Your task to perform on an android device: toggle pop-ups in chrome Image 0: 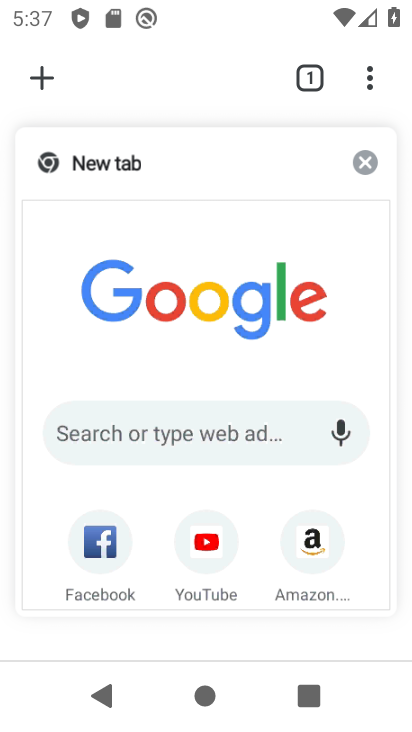
Step 0: press home button
Your task to perform on an android device: toggle pop-ups in chrome Image 1: 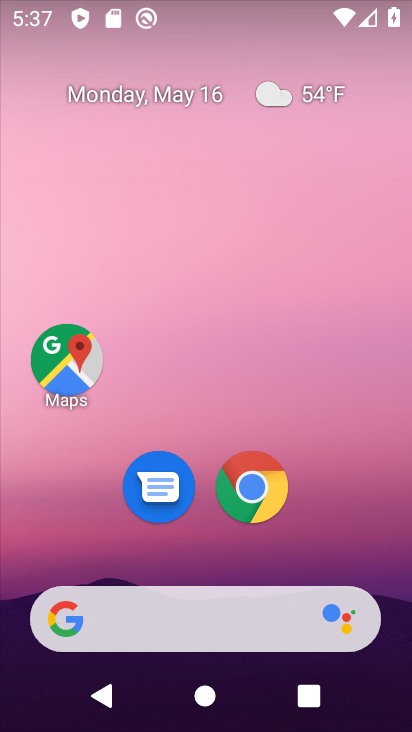
Step 1: drag from (220, 596) to (213, 329)
Your task to perform on an android device: toggle pop-ups in chrome Image 2: 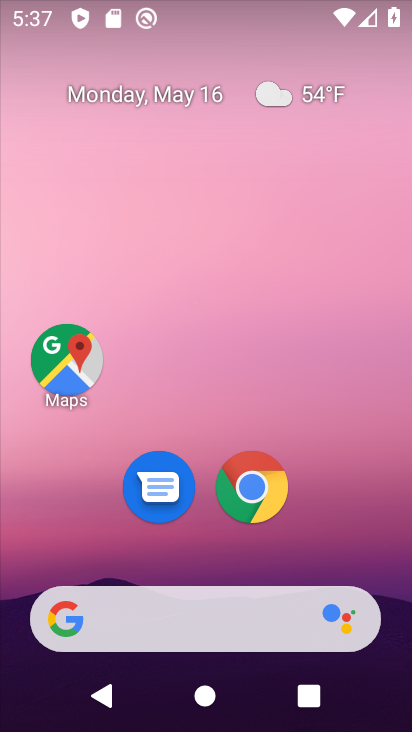
Step 2: click (262, 492)
Your task to perform on an android device: toggle pop-ups in chrome Image 3: 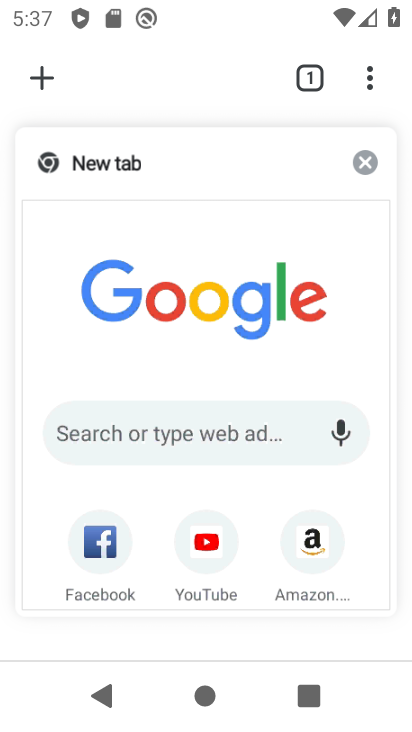
Step 3: click (365, 84)
Your task to perform on an android device: toggle pop-ups in chrome Image 4: 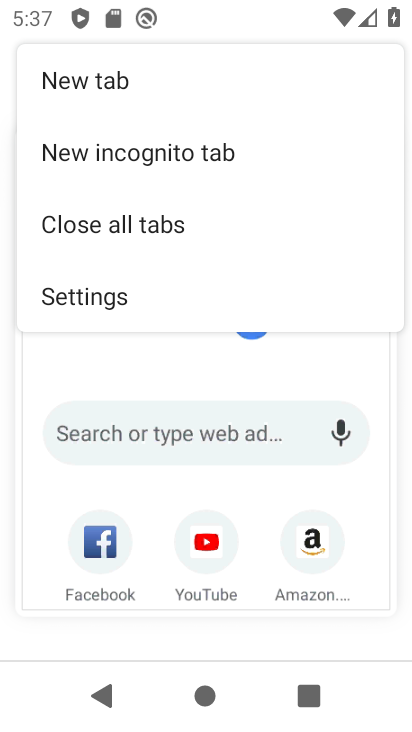
Step 4: click (55, 279)
Your task to perform on an android device: toggle pop-ups in chrome Image 5: 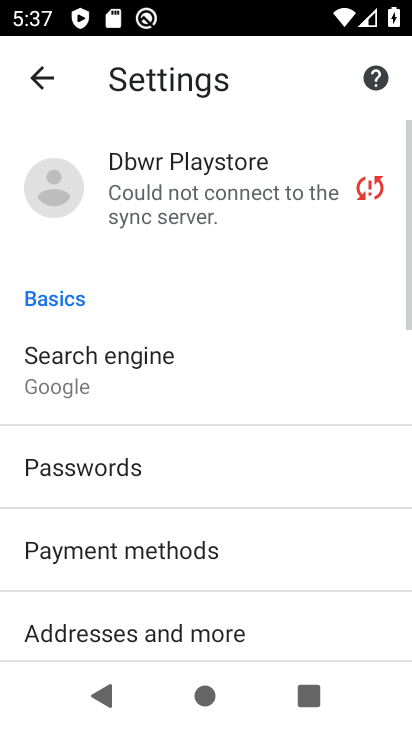
Step 5: drag from (100, 652) to (108, 329)
Your task to perform on an android device: toggle pop-ups in chrome Image 6: 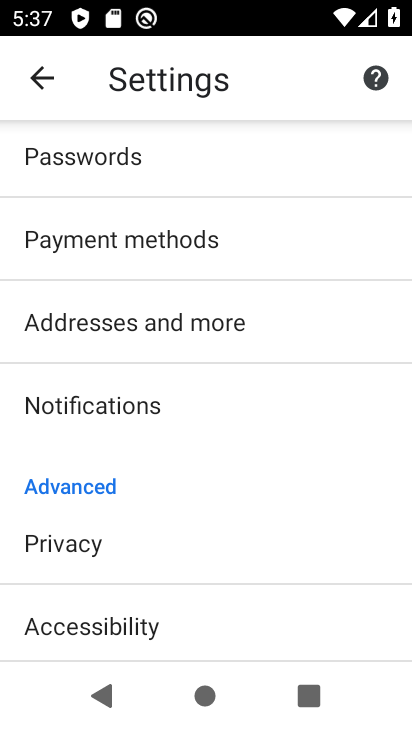
Step 6: drag from (113, 630) to (106, 354)
Your task to perform on an android device: toggle pop-ups in chrome Image 7: 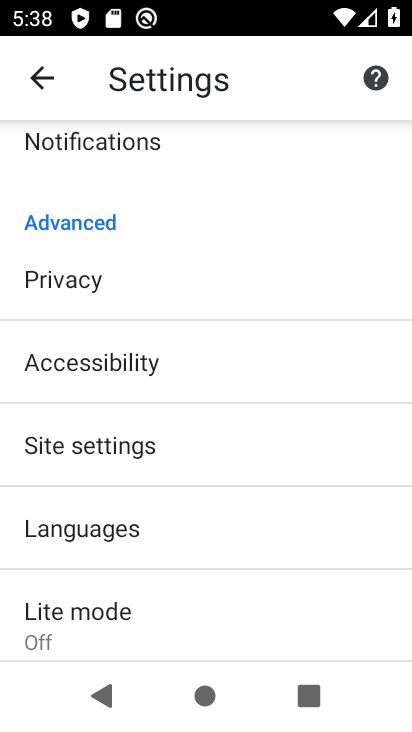
Step 7: click (88, 446)
Your task to perform on an android device: toggle pop-ups in chrome Image 8: 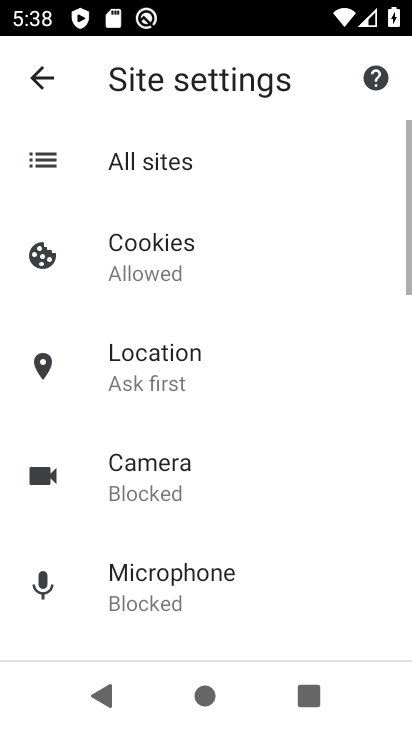
Step 8: drag from (151, 617) to (152, 290)
Your task to perform on an android device: toggle pop-ups in chrome Image 9: 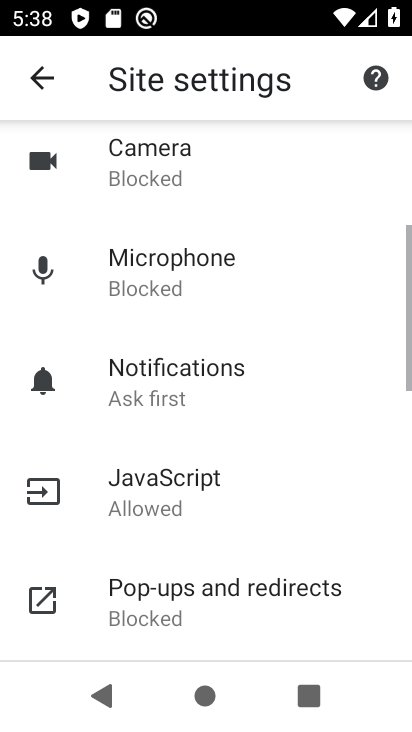
Step 9: click (184, 595)
Your task to perform on an android device: toggle pop-ups in chrome Image 10: 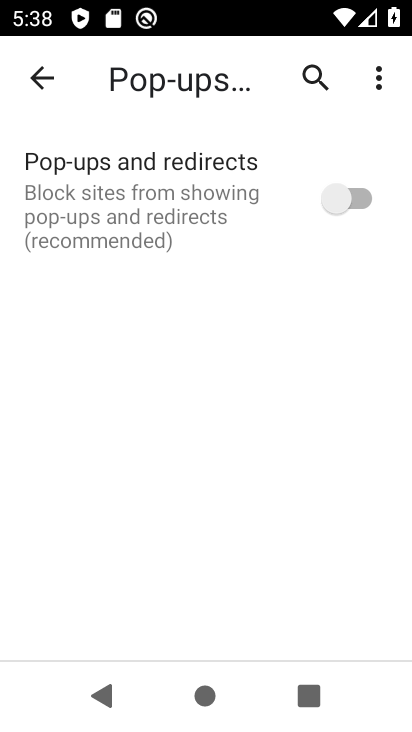
Step 10: click (355, 187)
Your task to perform on an android device: toggle pop-ups in chrome Image 11: 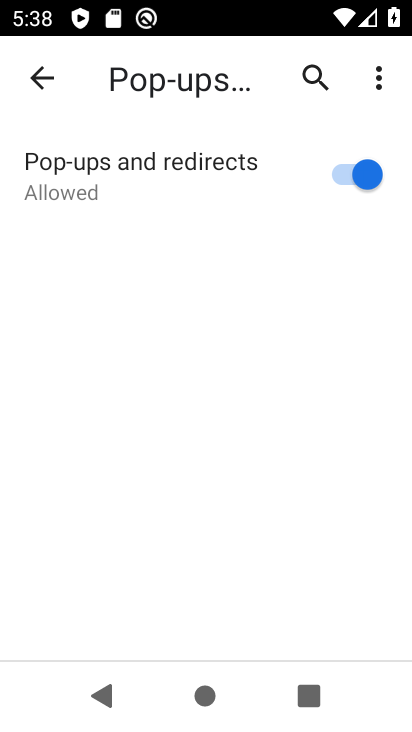
Step 11: task complete